Your task to perform on an android device: create a new album in the google photos Image 0: 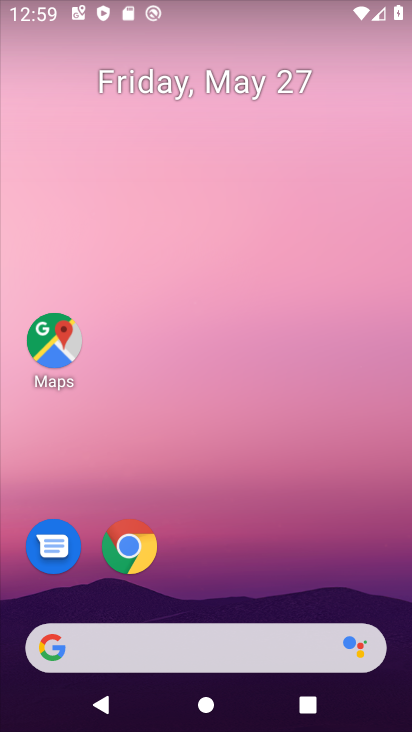
Step 0: drag from (236, 661) to (272, 104)
Your task to perform on an android device: create a new album in the google photos Image 1: 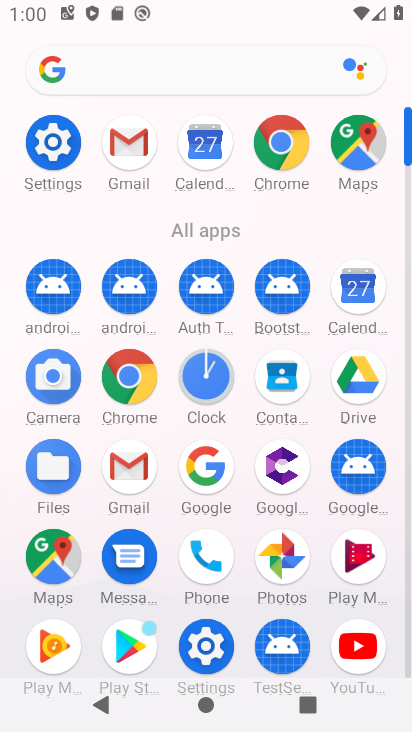
Step 1: click (280, 559)
Your task to perform on an android device: create a new album in the google photos Image 2: 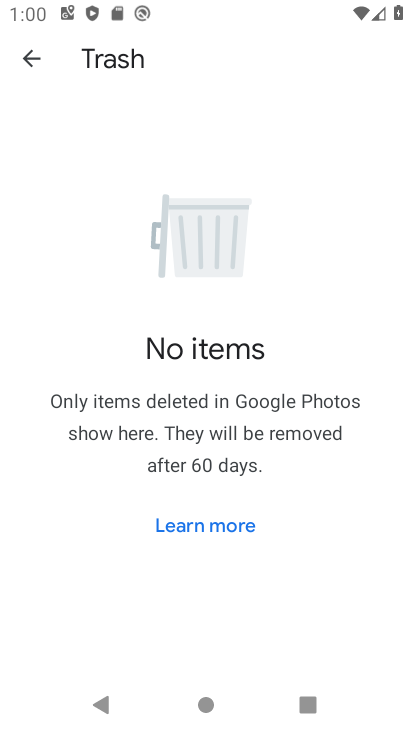
Step 2: click (19, 65)
Your task to perform on an android device: create a new album in the google photos Image 3: 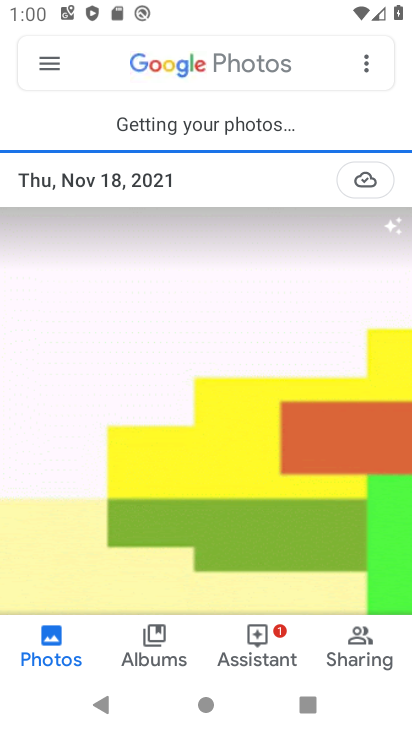
Step 3: click (46, 61)
Your task to perform on an android device: create a new album in the google photos Image 4: 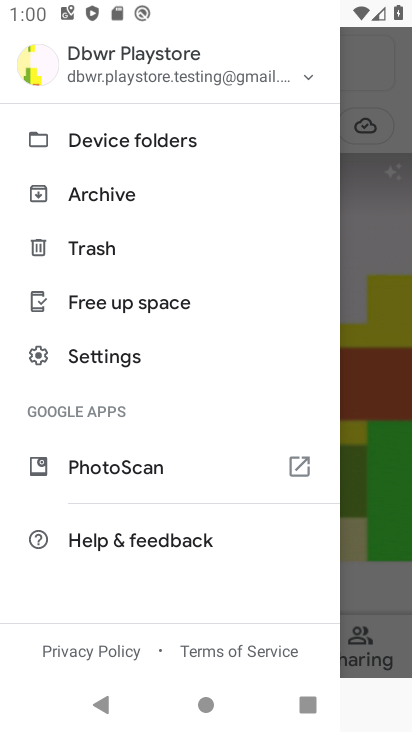
Step 4: click (380, 491)
Your task to perform on an android device: create a new album in the google photos Image 5: 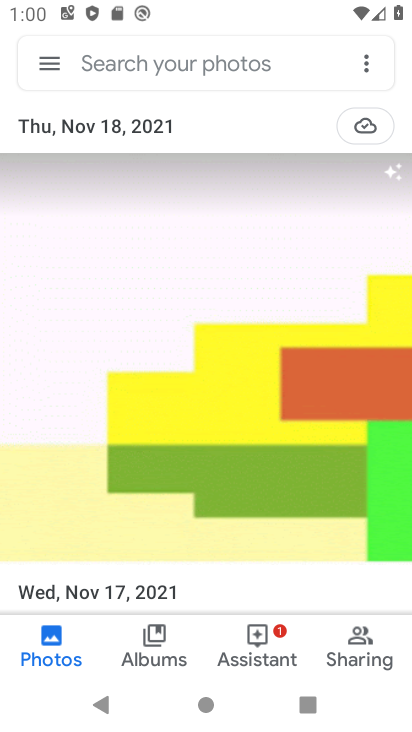
Step 5: drag from (270, 539) to (327, 233)
Your task to perform on an android device: create a new album in the google photos Image 6: 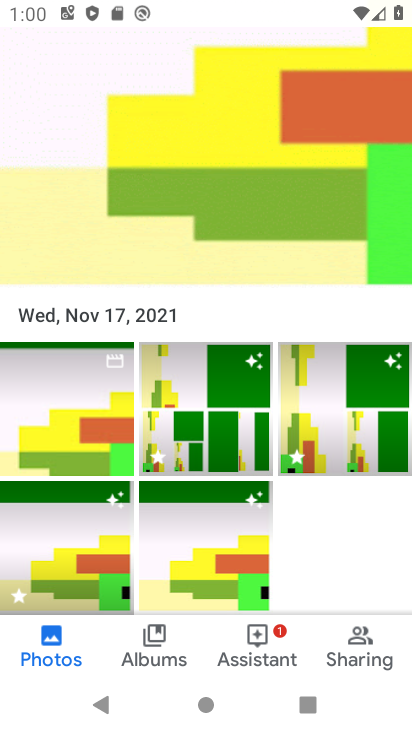
Step 6: click (218, 515)
Your task to perform on an android device: create a new album in the google photos Image 7: 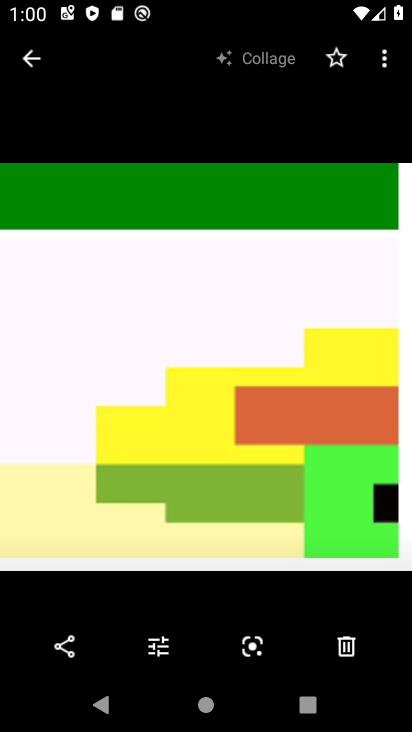
Step 7: click (390, 48)
Your task to perform on an android device: create a new album in the google photos Image 8: 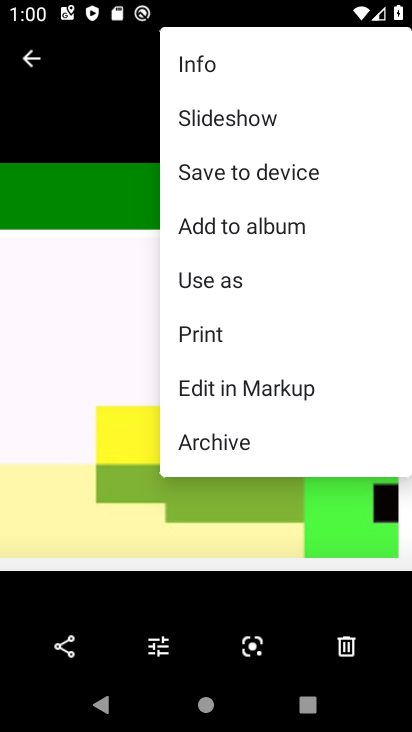
Step 8: click (270, 230)
Your task to perform on an android device: create a new album in the google photos Image 9: 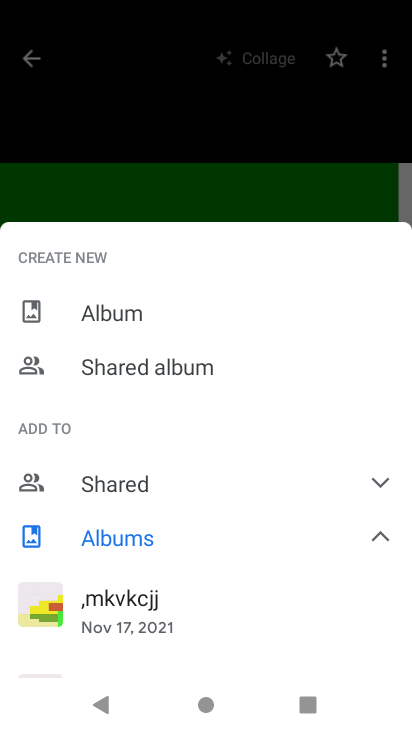
Step 9: click (116, 318)
Your task to perform on an android device: create a new album in the google photos Image 10: 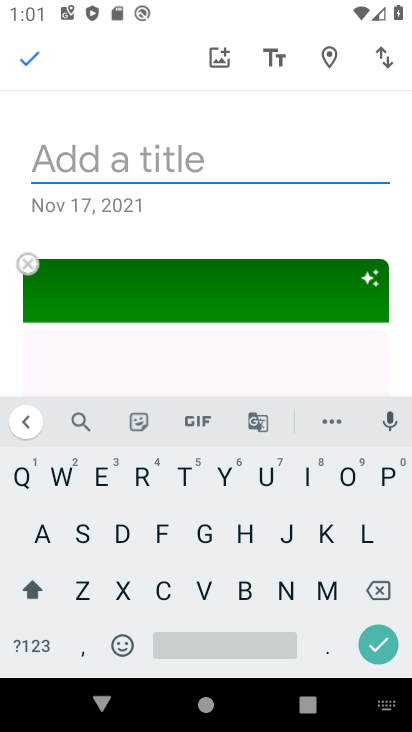
Step 10: click (147, 490)
Your task to perform on an android device: create a new album in the google photos Image 11: 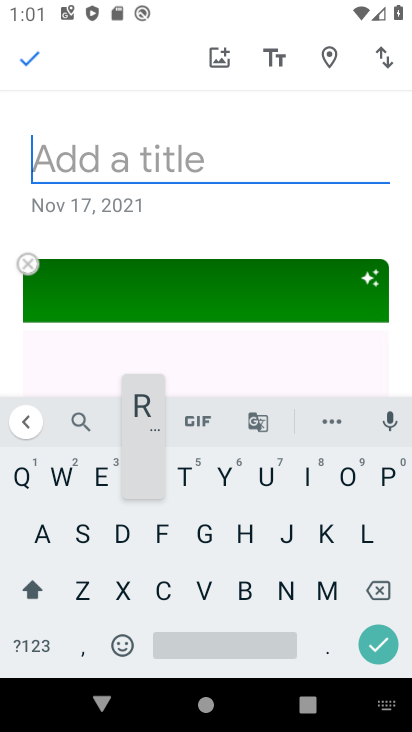
Step 11: click (221, 502)
Your task to perform on an android device: create a new album in the google photos Image 12: 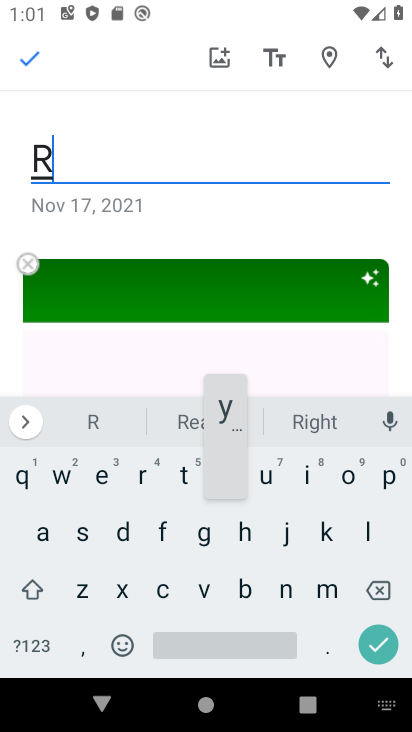
Step 12: click (180, 549)
Your task to perform on an android device: create a new album in the google photos Image 13: 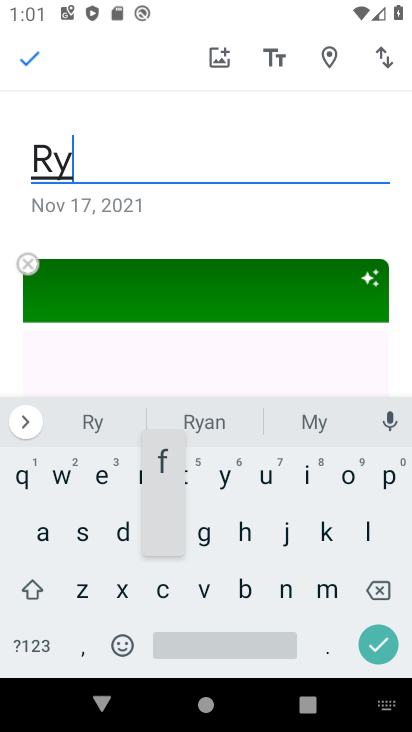
Step 13: click (171, 556)
Your task to perform on an android device: create a new album in the google photos Image 14: 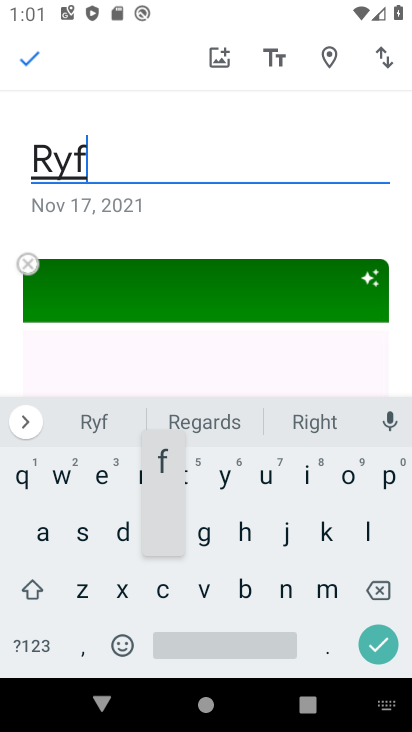
Step 14: click (171, 556)
Your task to perform on an android device: create a new album in the google photos Image 15: 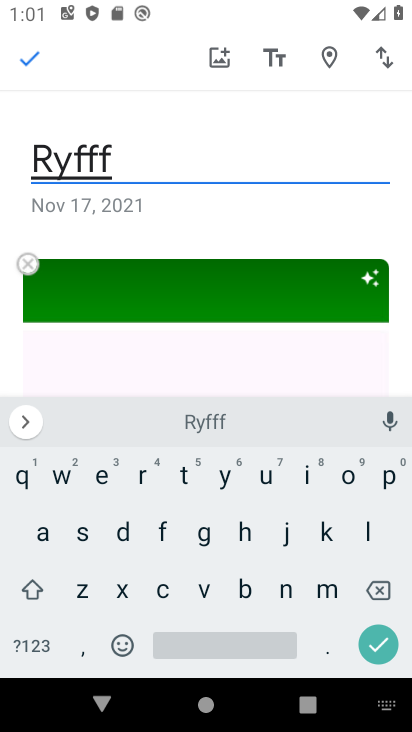
Step 15: click (31, 57)
Your task to perform on an android device: create a new album in the google photos Image 16: 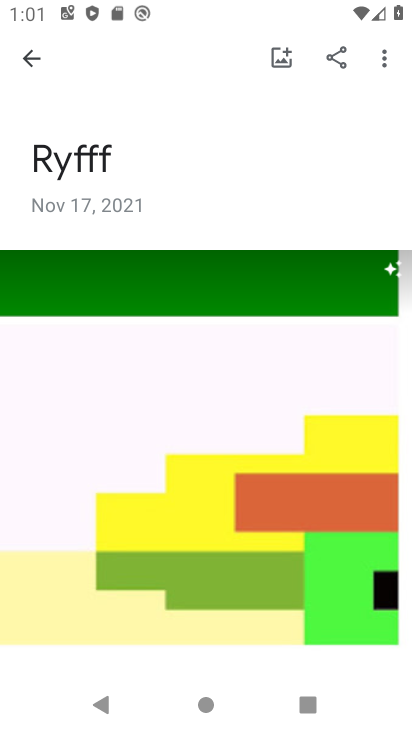
Step 16: task complete